Your task to perform on an android device: Turn off the flashlight Image 0: 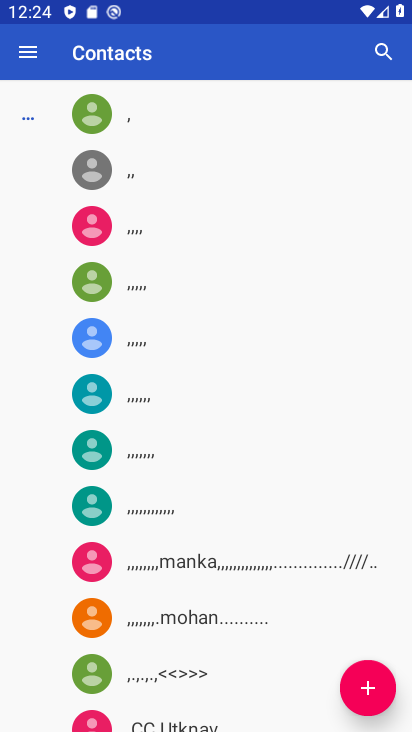
Step 0: press home button
Your task to perform on an android device: Turn off the flashlight Image 1: 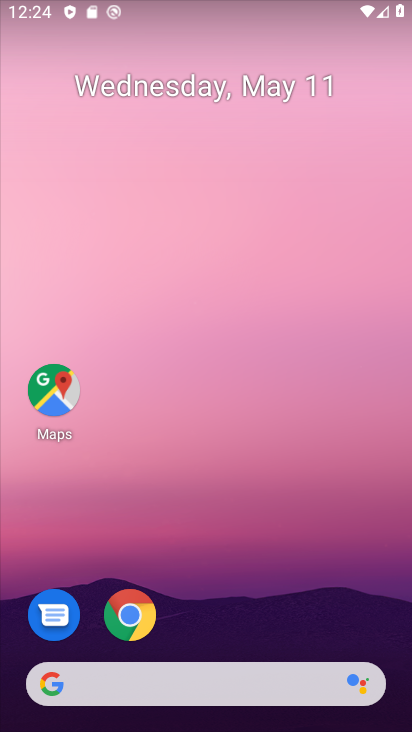
Step 1: drag from (213, 612) to (312, 139)
Your task to perform on an android device: Turn off the flashlight Image 2: 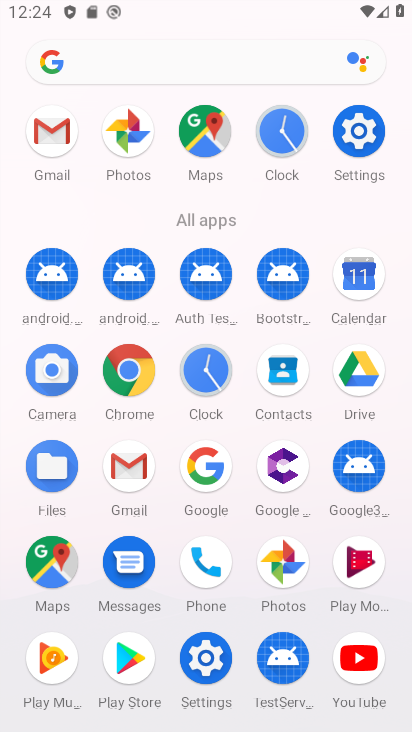
Step 2: click (350, 149)
Your task to perform on an android device: Turn off the flashlight Image 3: 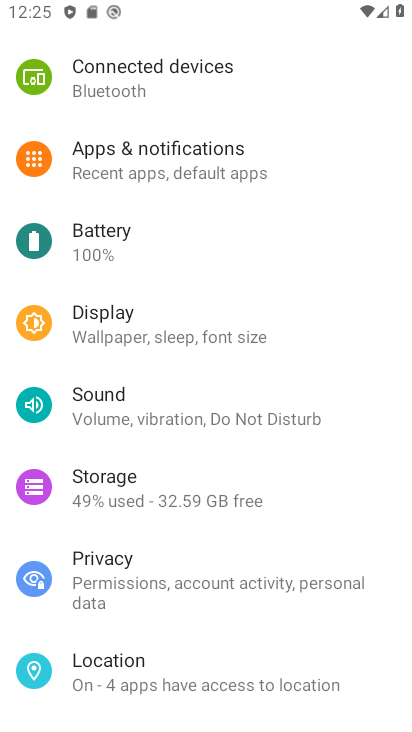
Step 3: task complete